Your task to perform on an android device: turn on improve location accuracy Image 0: 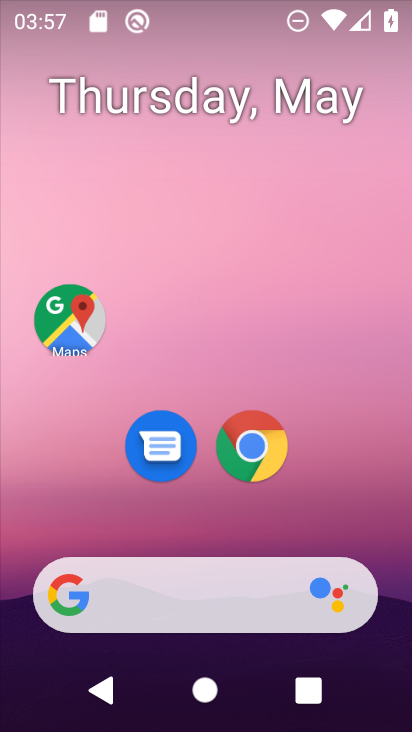
Step 0: drag from (364, 530) to (303, 25)
Your task to perform on an android device: turn on improve location accuracy Image 1: 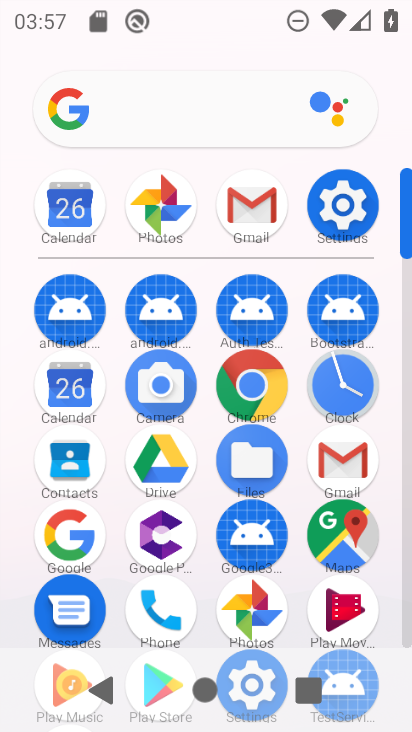
Step 1: click (341, 194)
Your task to perform on an android device: turn on improve location accuracy Image 2: 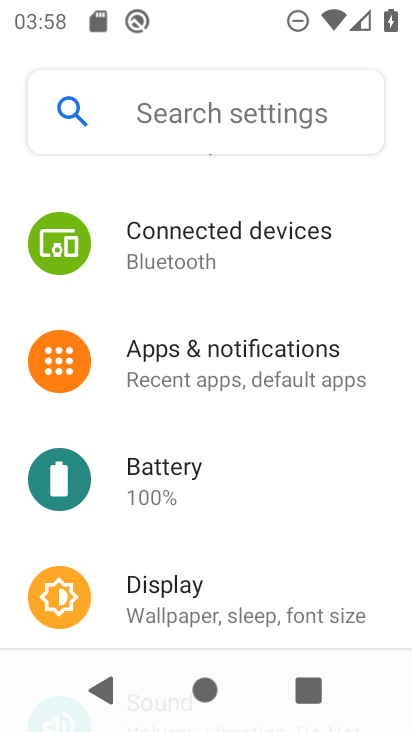
Step 2: drag from (293, 535) to (248, 115)
Your task to perform on an android device: turn on improve location accuracy Image 3: 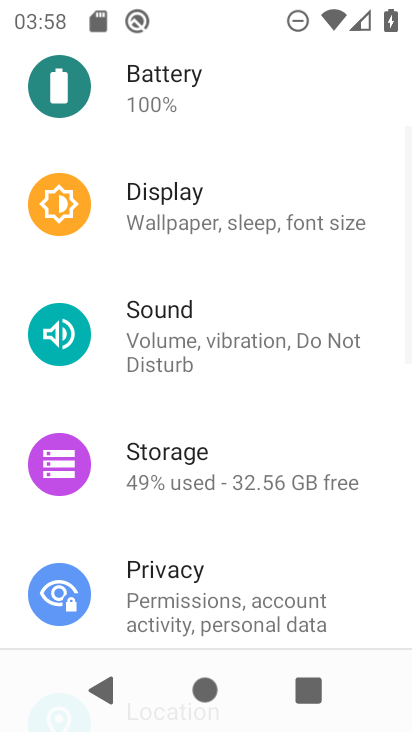
Step 3: drag from (252, 444) to (237, 182)
Your task to perform on an android device: turn on improve location accuracy Image 4: 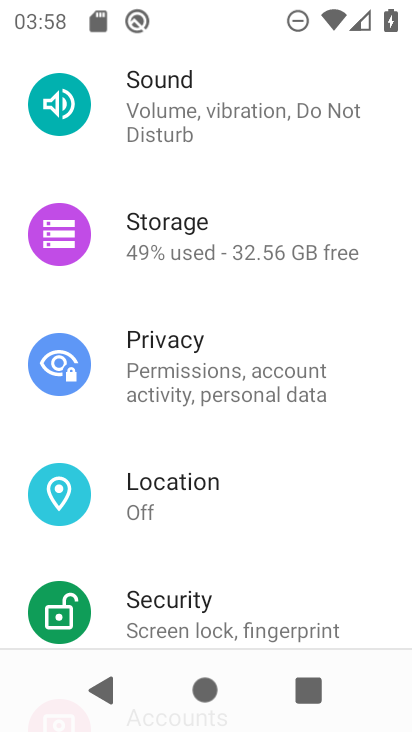
Step 4: click (158, 485)
Your task to perform on an android device: turn on improve location accuracy Image 5: 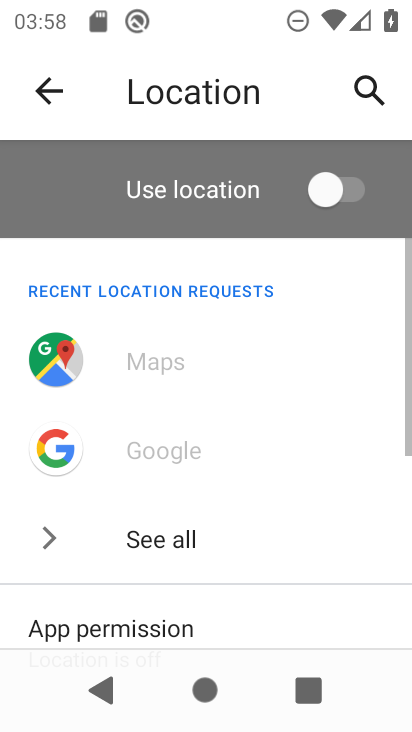
Step 5: drag from (313, 592) to (291, 195)
Your task to perform on an android device: turn on improve location accuracy Image 6: 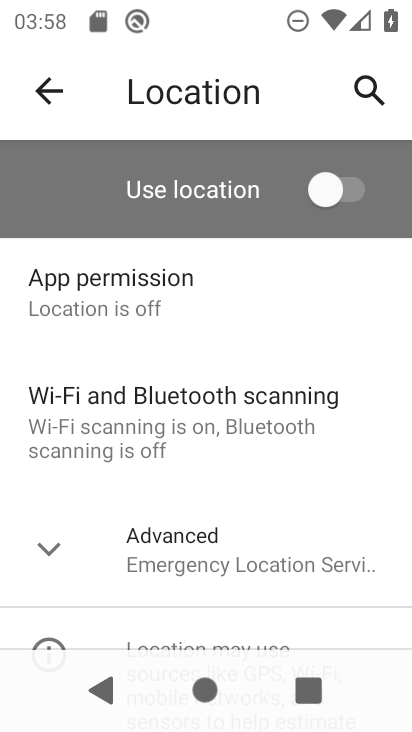
Step 6: click (46, 557)
Your task to perform on an android device: turn on improve location accuracy Image 7: 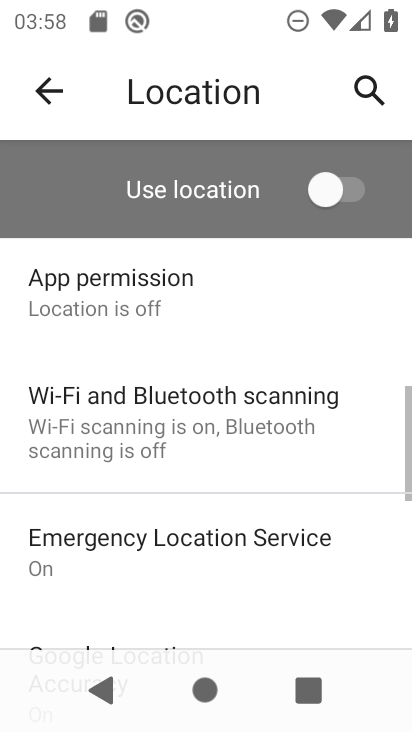
Step 7: drag from (274, 551) to (250, 217)
Your task to perform on an android device: turn on improve location accuracy Image 8: 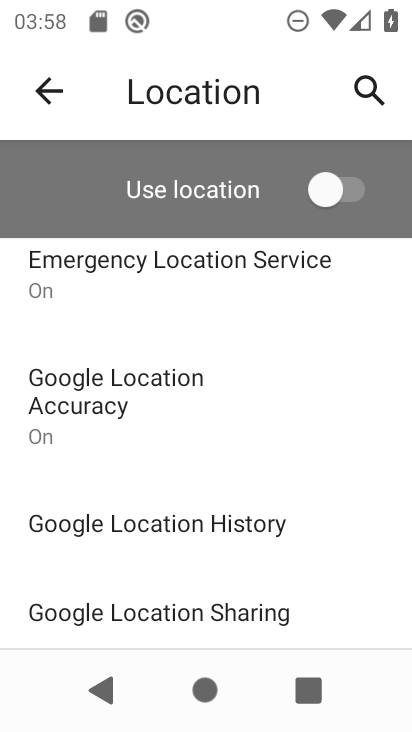
Step 8: click (80, 412)
Your task to perform on an android device: turn on improve location accuracy Image 9: 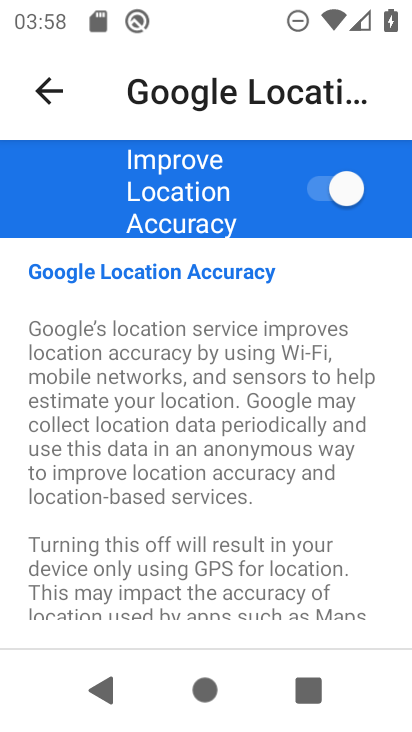
Step 9: task complete